Your task to perform on an android device: turn pop-ups off in chrome Image 0: 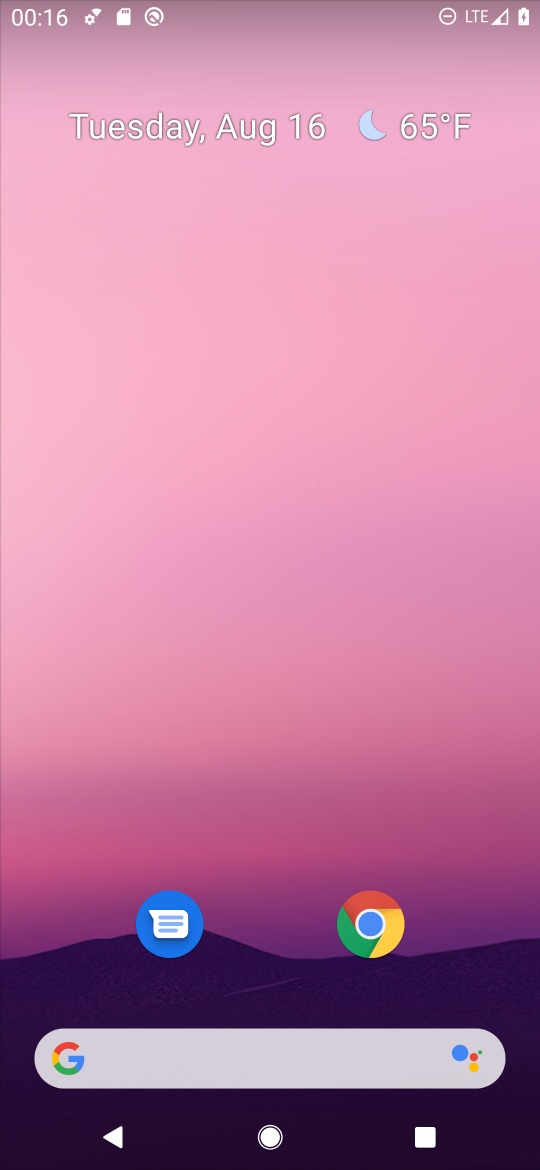
Step 0: click (367, 924)
Your task to perform on an android device: turn pop-ups off in chrome Image 1: 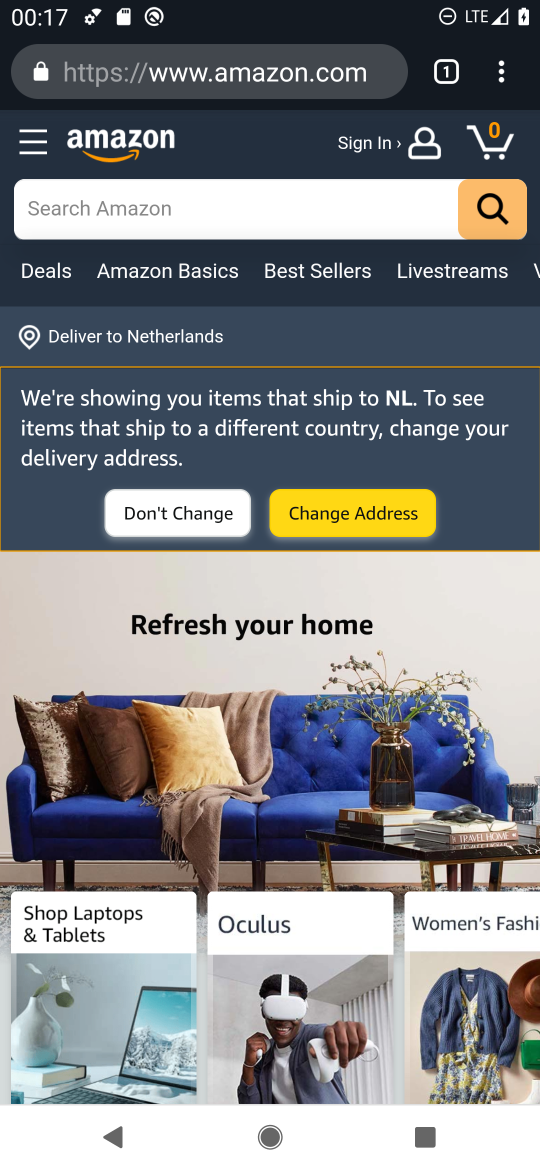
Step 1: click (514, 71)
Your task to perform on an android device: turn pop-ups off in chrome Image 2: 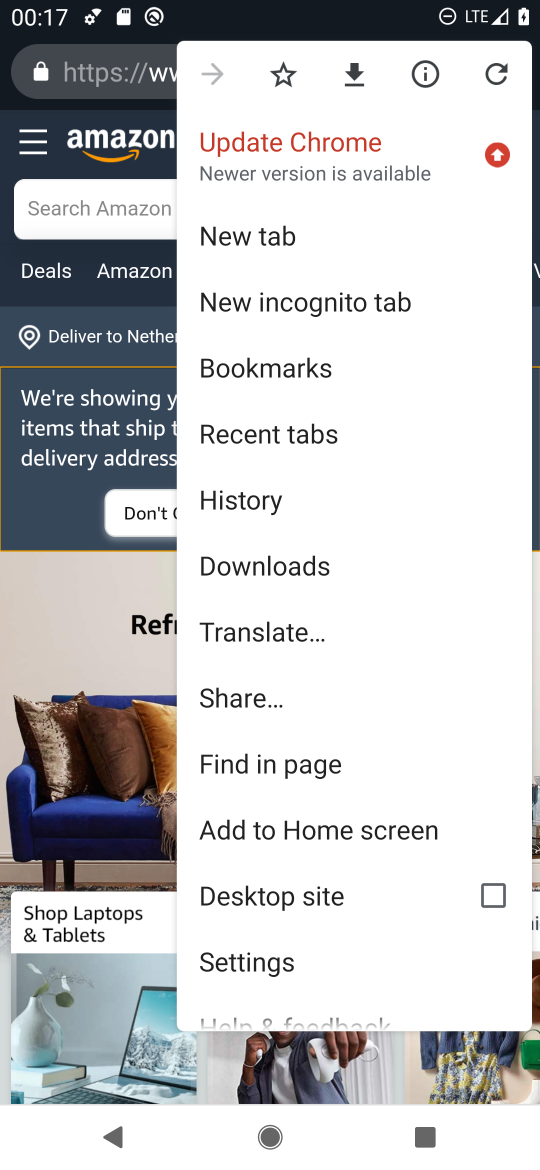
Step 2: click (282, 957)
Your task to perform on an android device: turn pop-ups off in chrome Image 3: 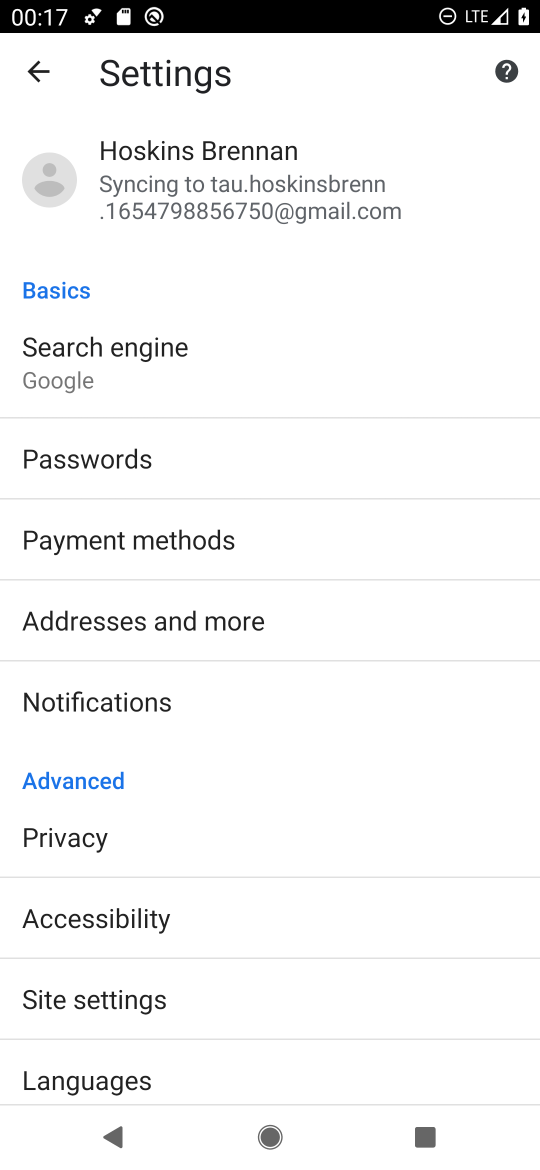
Step 3: click (205, 990)
Your task to perform on an android device: turn pop-ups off in chrome Image 4: 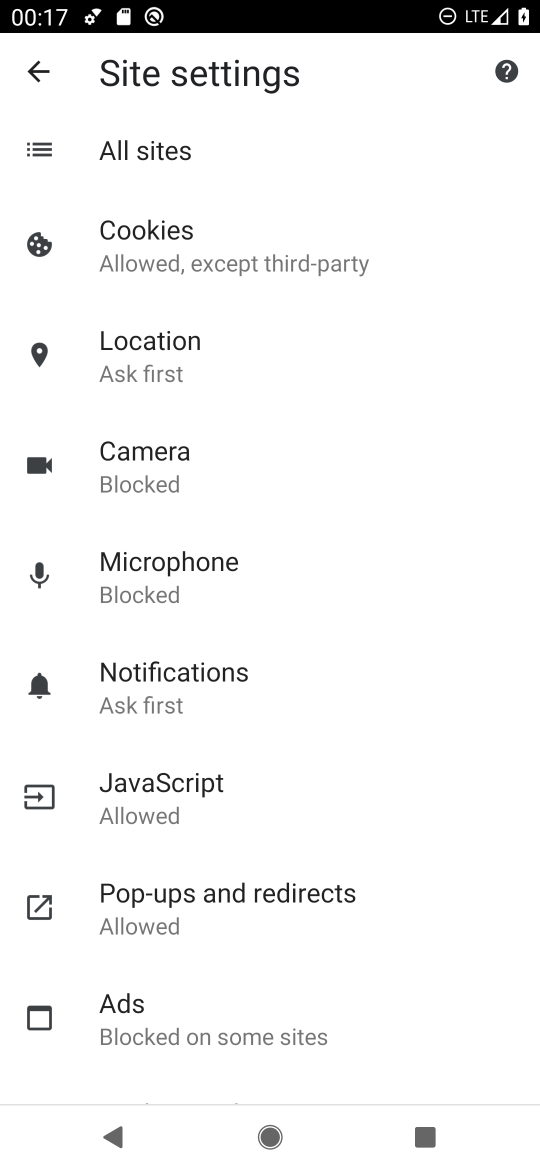
Step 4: click (213, 903)
Your task to perform on an android device: turn pop-ups off in chrome Image 5: 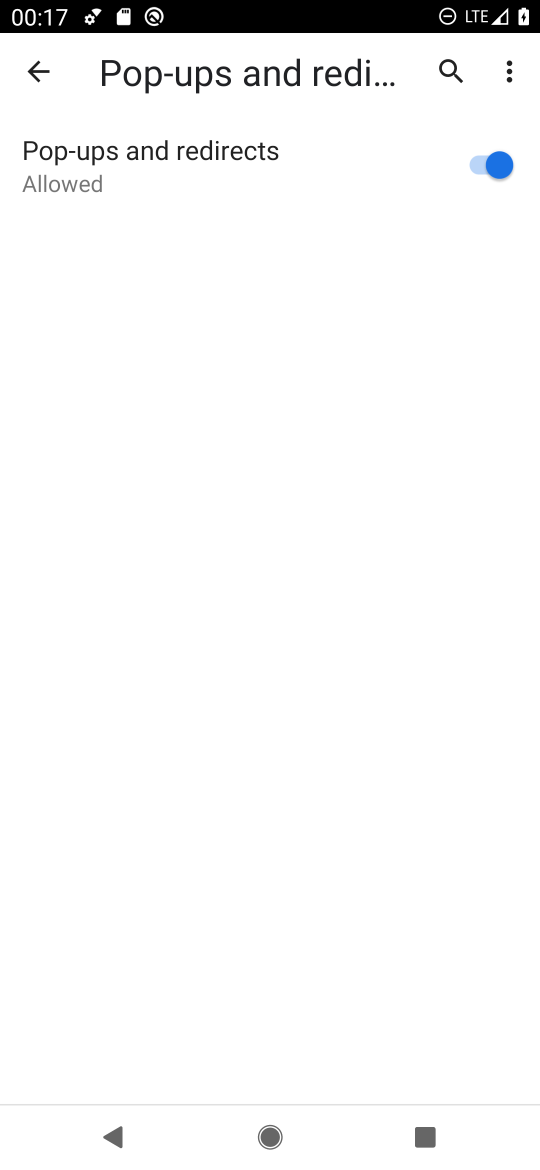
Step 5: click (503, 179)
Your task to perform on an android device: turn pop-ups off in chrome Image 6: 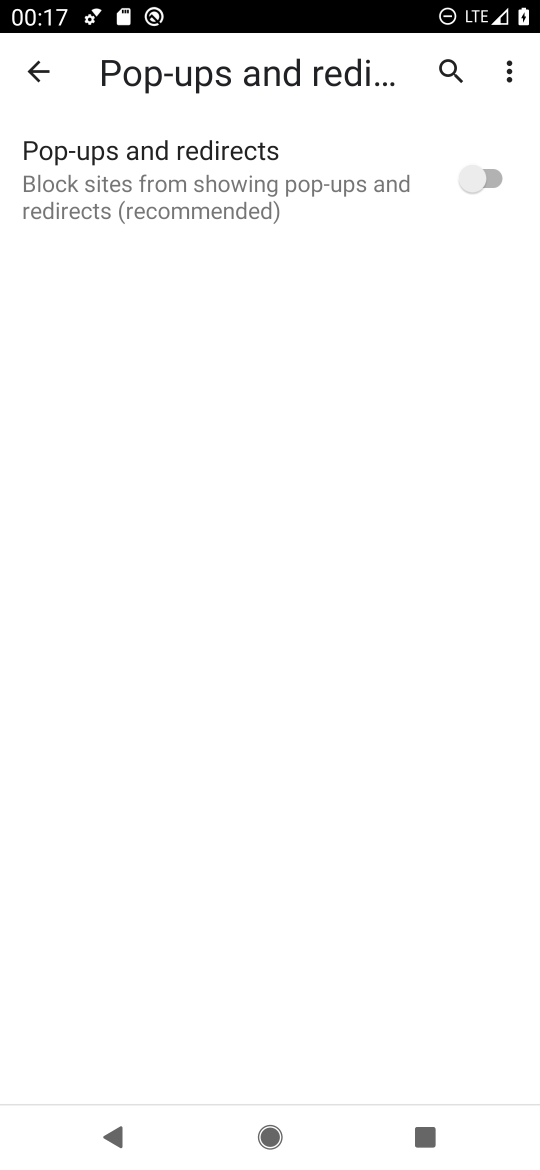
Step 6: task complete